Your task to perform on an android device: Empty the shopping cart on bestbuy. Search for "usb-b" on bestbuy, select the first entry, and add it to the cart. Image 0: 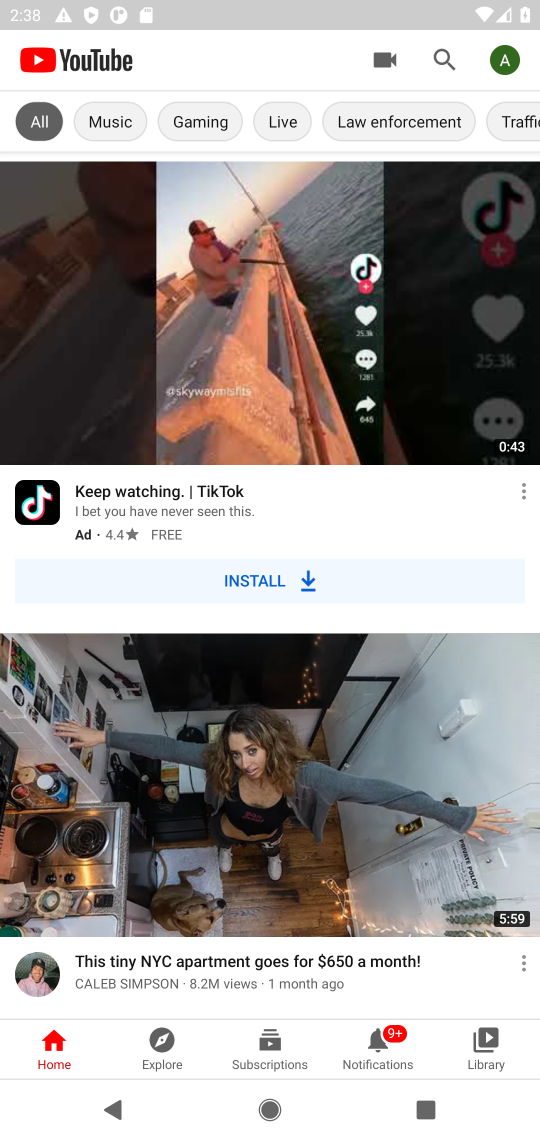
Step 0: press home button
Your task to perform on an android device: Empty the shopping cart on bestbuy. Search for "usb-b" on bestbuy, select the first entry, and add it to the cart. Image 1: 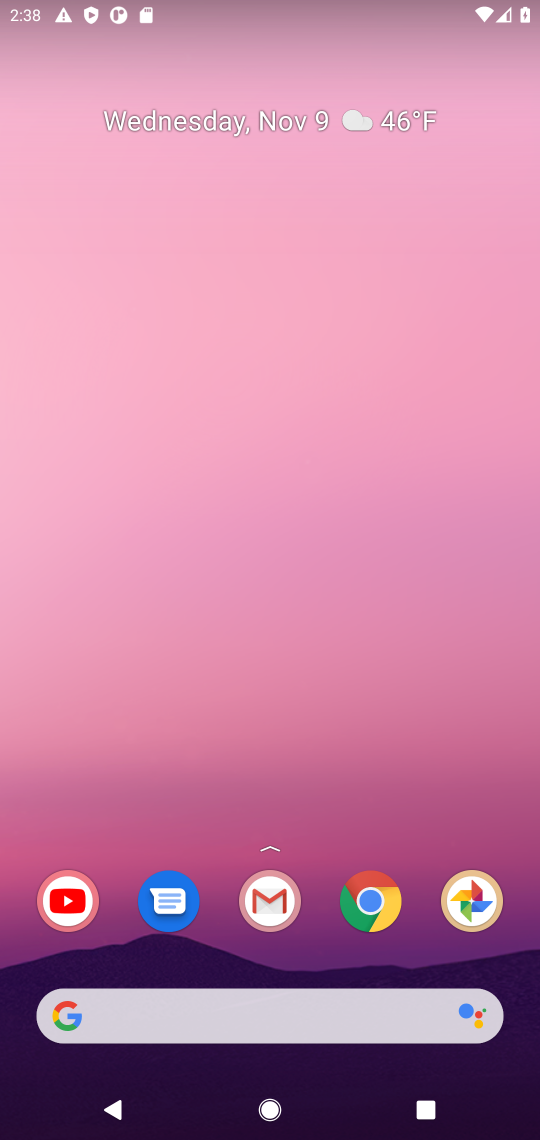
Step 1: click (370, 903)
Your task to perform on an android device: Empty the shopping cart on bestbuy. Search for "usb-b" on bestbuy, select the first entry, and add it to the cart. Image 2: 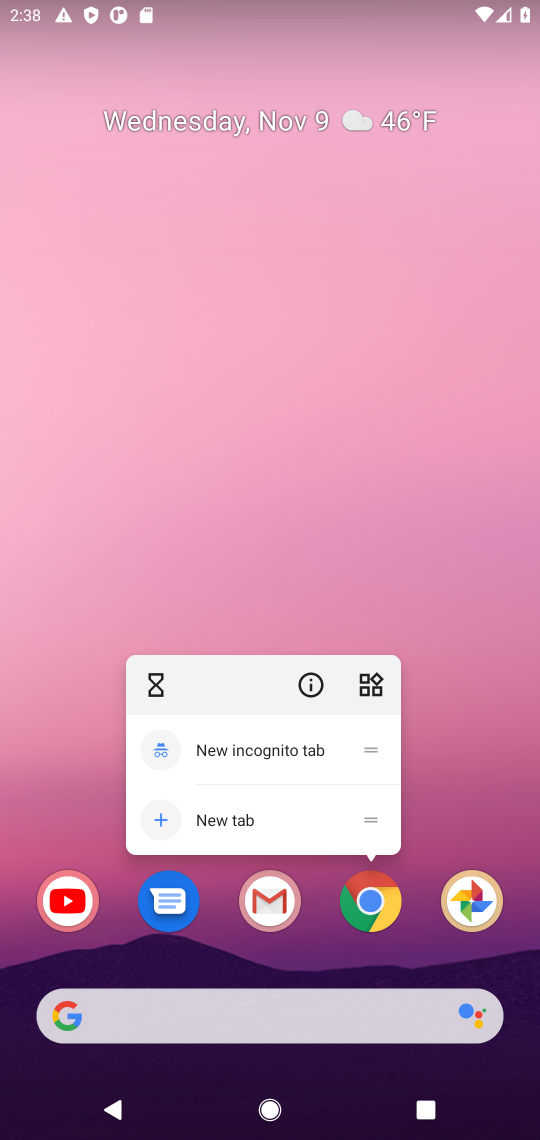
Step 2: click (370, 903)
Your task to perform on an android device: Empty the shopping cart on bestbuy. Search for "usb-b" on bestbuy, select the first entry, and add it to the cart. Image 3: 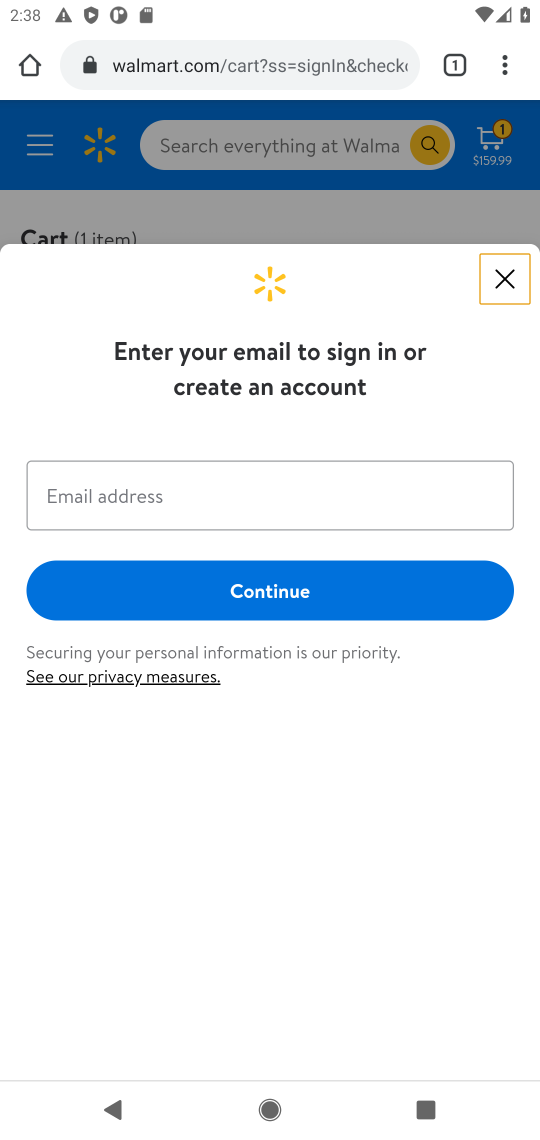
Step 3: click (334, 70)
Your task to perform on an android device: Empty the shopping cart on bestbuy. Search for "usb-b" on bestbuy, select the first entry, and add it to the cart. Image 4: 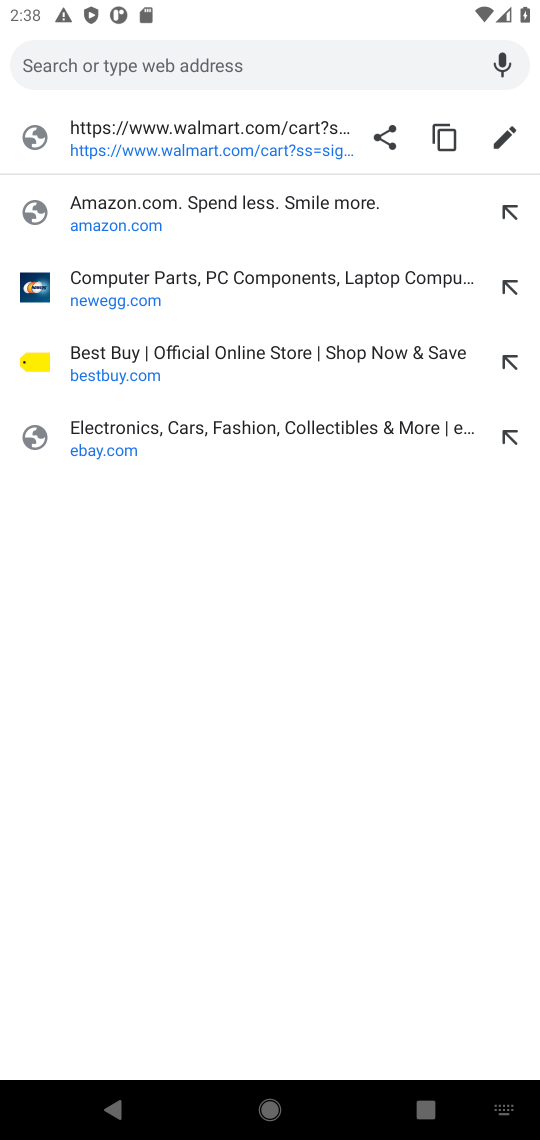
Step 4: click (143, 353)
Your task to perform on an android device: Empty the shopping cart on bestbuy. Search for "usb-b" on bestbuy, select the first entry, and add it to the cart. Image 5: 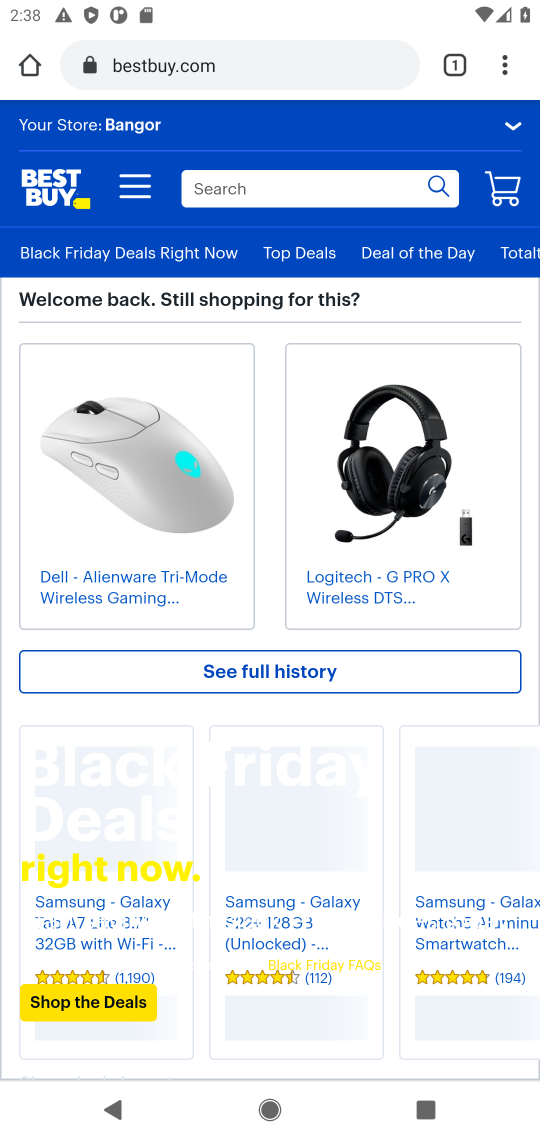
Step 5: click (506, 188)
Your task to perform on an android device: Empty the shopping cart on bestbuy. Search for "usb-b" on bestbuy, select the first entry, and add it to the cart. Image 6: 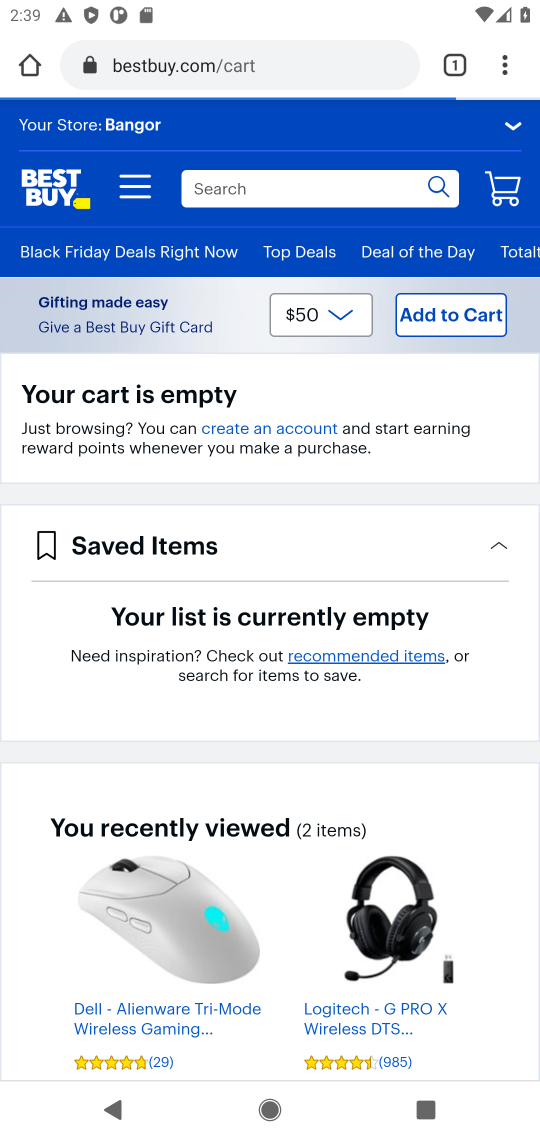
Step 6: click (313, 189)
Your task to perform on an android device: Empty the shopping cart on bestbuy. Search for "usb-b" on bestbuy, select the first entry, and add it to the cart. Image 7: 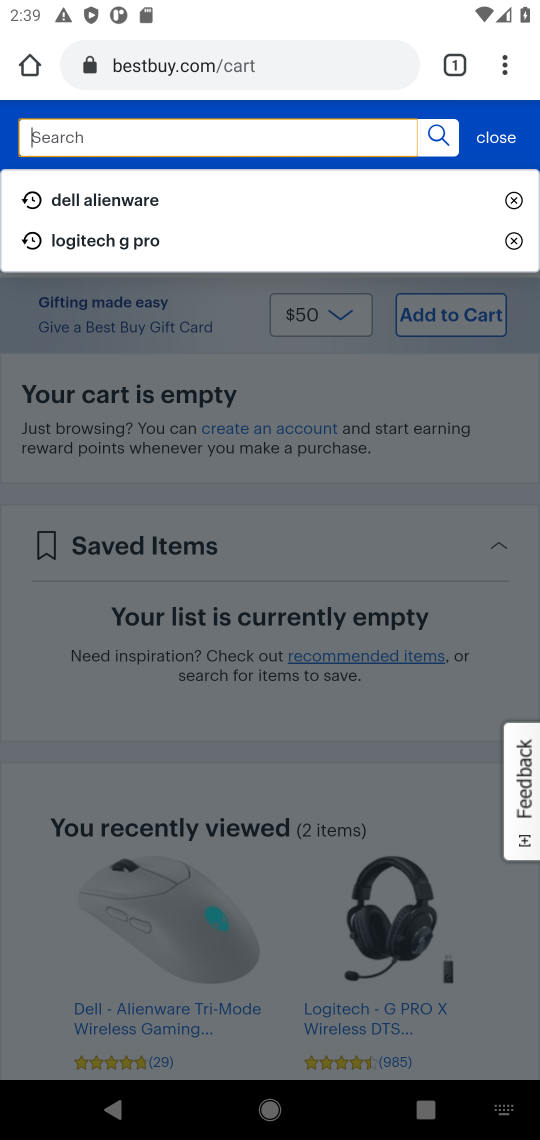
Step 7: click (124, 124)
Your task to perform on an android device: Empty the shopping cart on bestbuy. Search for "usb-b" on bestbuy, select the first entry, and add it to the cart. Image 8: 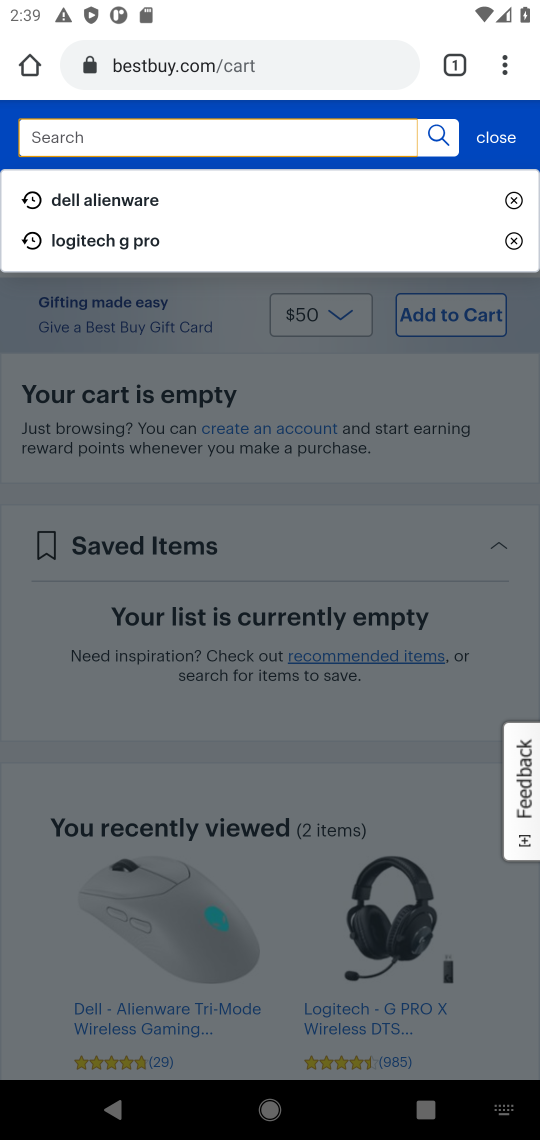
Step 8: type "usb-b"
Your task to perform on an android device: Empty the shopping cart on bestbuy. Search for "usb-b" on bestbuy, select the first entry, and add it to the cart. Image 9: 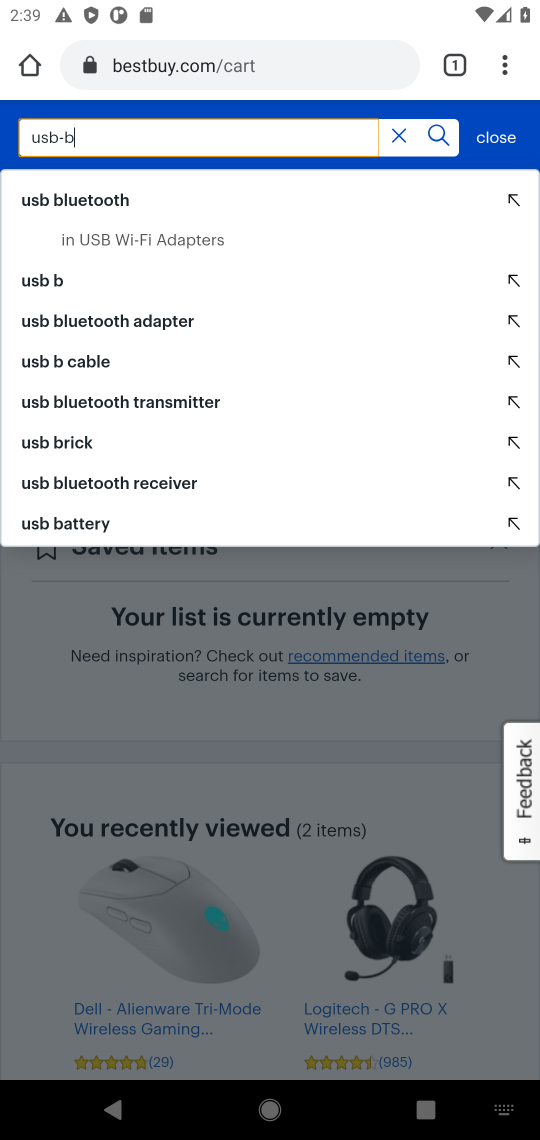
Step 9: click (55, 274)
Your task to perform on an android device: Empty the shopping cart on bestbuy. Search for "usb-b" on bestbuy, select the first entry, and add it to the cart. Image 10: 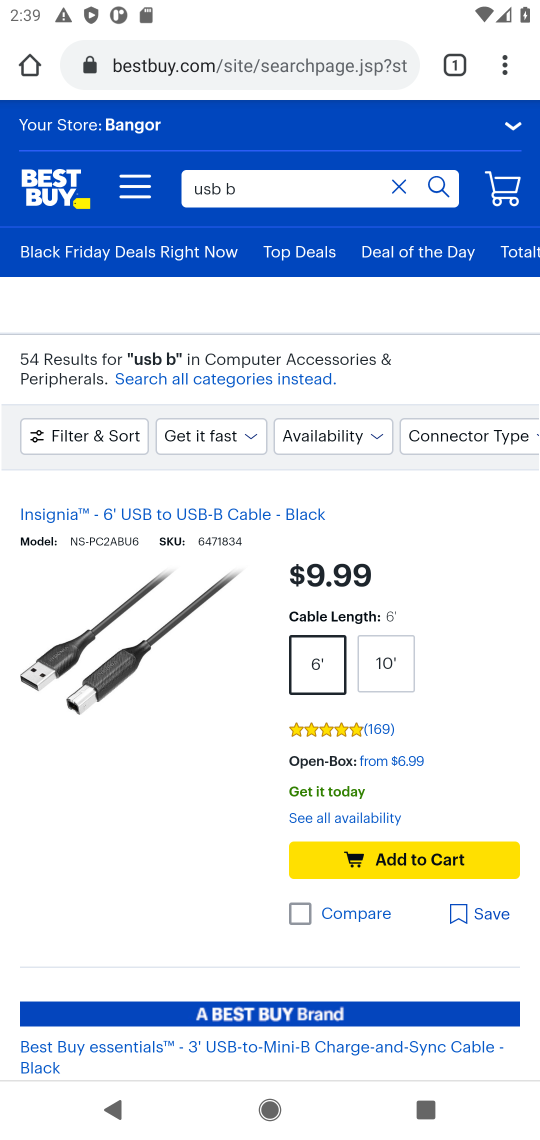
Step 10: drag from (251, 902) to (351, 466)
Your task to perform on an android device: Empty the shopping cart on bestbuy. Search for "usb-b" on bestbuy, select the first entry, and add it to the cart. Image 11: 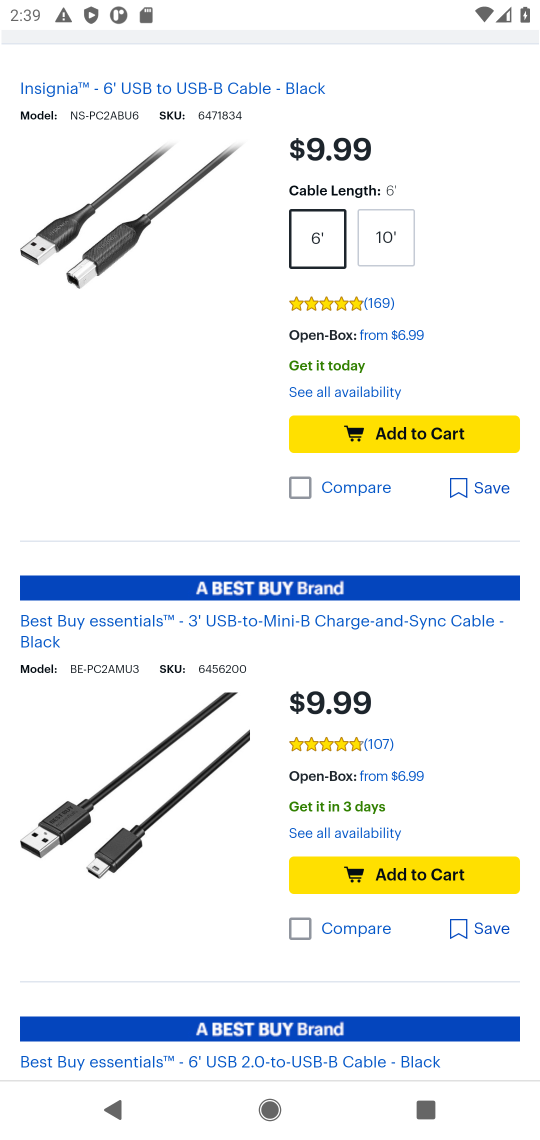
Step 11: click (116, 261)
Your task to perform on an android device: Empty the shopping cart on bestbuy. Search for "usb-b" on bestbuy, select the first entry, and add it to the cart. Image 12: 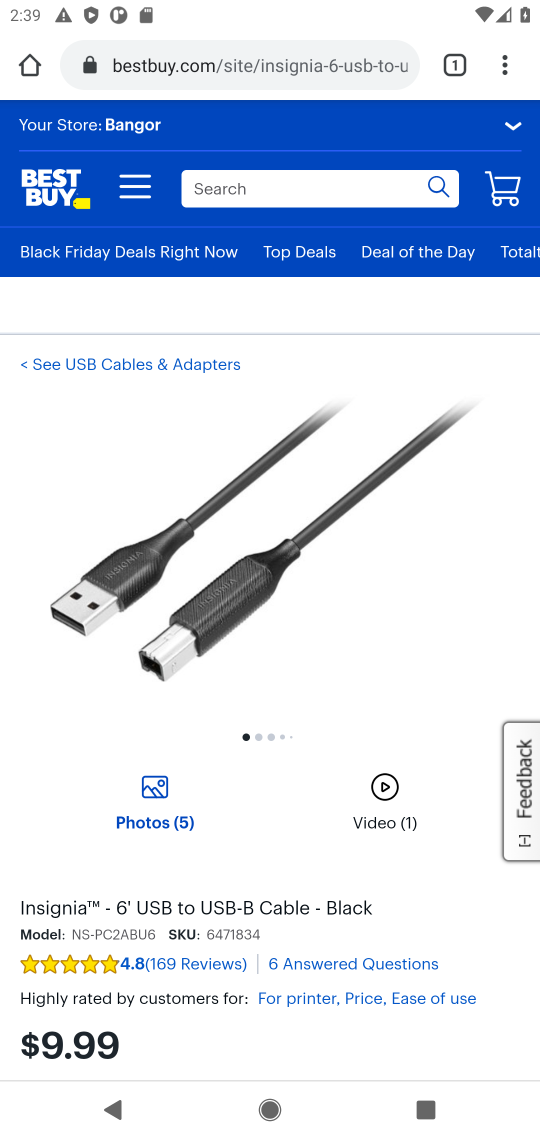
Step 12: drag from (392, 607) to (359, 225)
Your task to perform on an android device: Empty the shopping cart on bestbuy. Search for "usb-b" on bestbuy, select the first entry, and add it to the cart. Image 13: 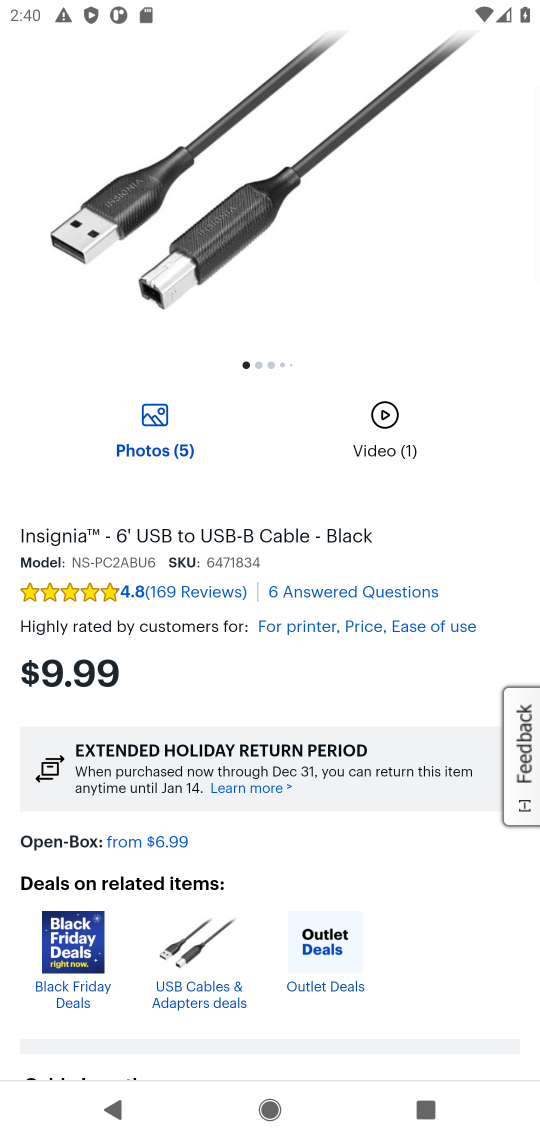
Step 13: drag from (421, 887) to (296, 419)
Your task to perform on an android device: Empty the shopping cart on bestbuy. Search for "usb-b" on bestbuy, select the first entry, and add it to the cart. Image 14: 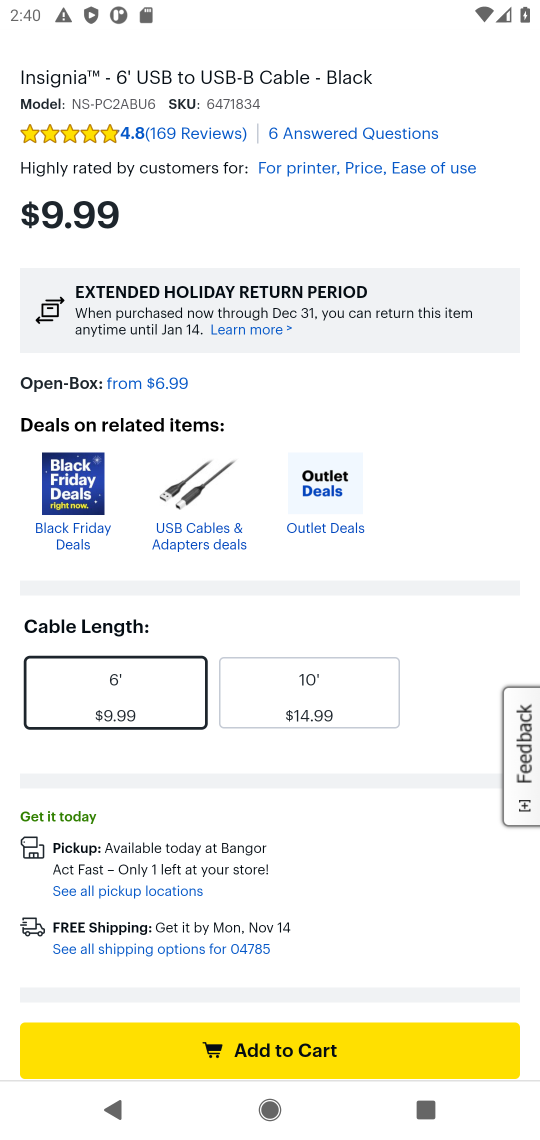
Step 14: click (332, 1047)
Your task to perform on an android device: Empty the shopping cart on bestbuy. Search for "usb-b" on bestbuy, select the first entry, and add it to the cart. Image 15: 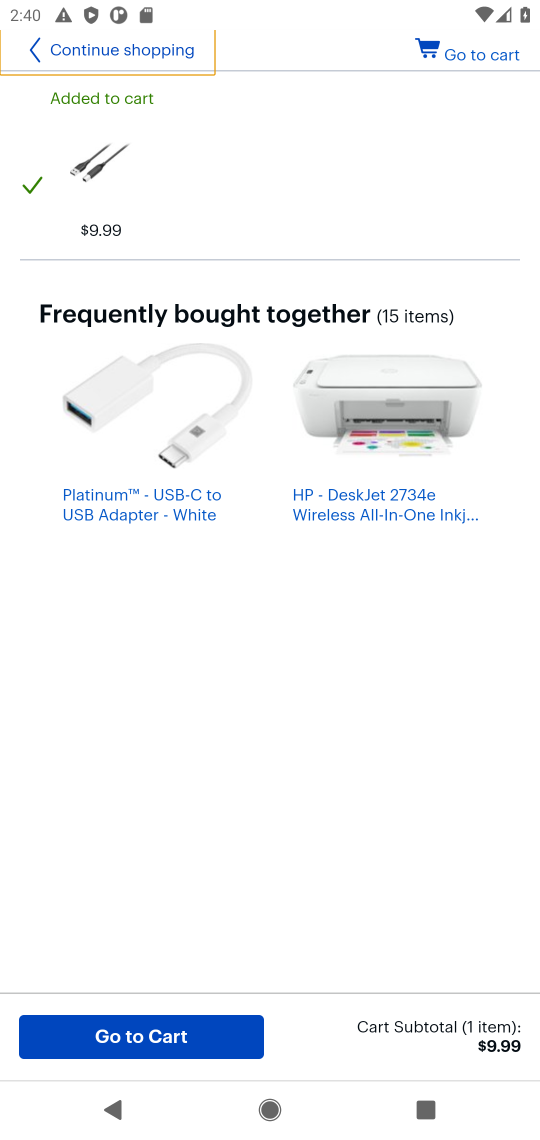
Step 15: task complete